Your task to perform on an android device: visit the assistant section in the google photos Image 0: 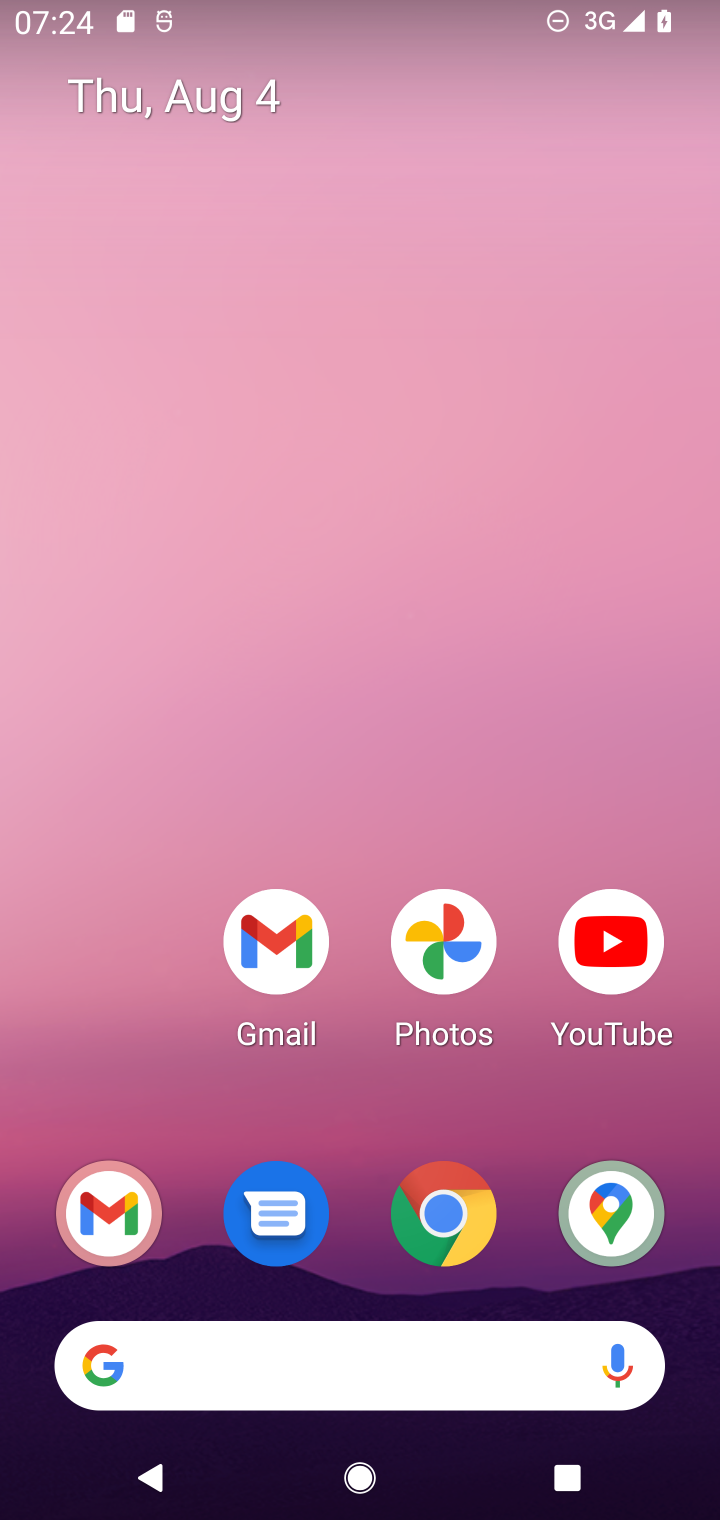
Step 0: press home button
Your task to perform on an android device: visit the assistant section in the google photos Image 1: 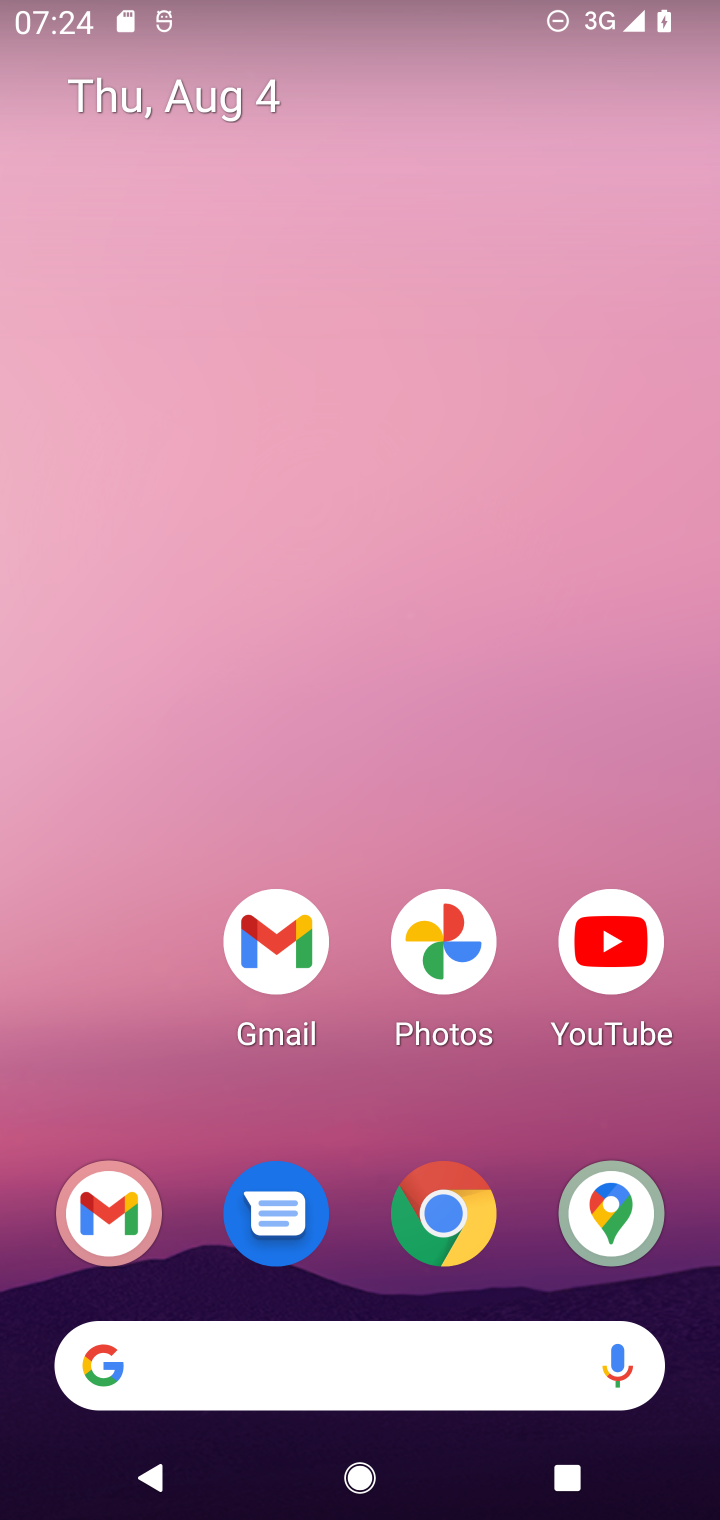
Step 1: drag from (147, 1038) to (132, 397)
Your task to perform on an android device: visit the assistant section in the google photos Image 2: 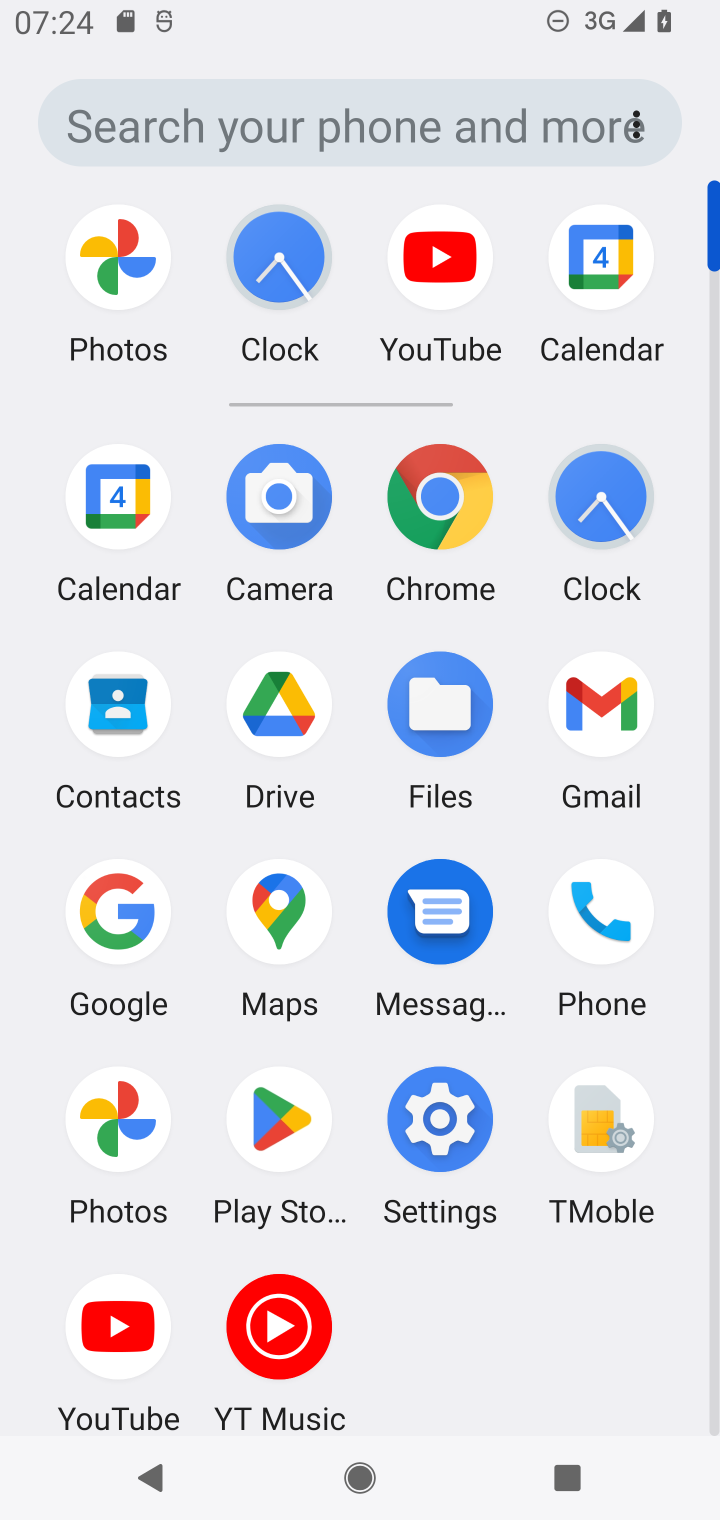
Step 2: click (112, 1130)
Your task to perform on an android device: visit the assistant section in the google photos Image 3: 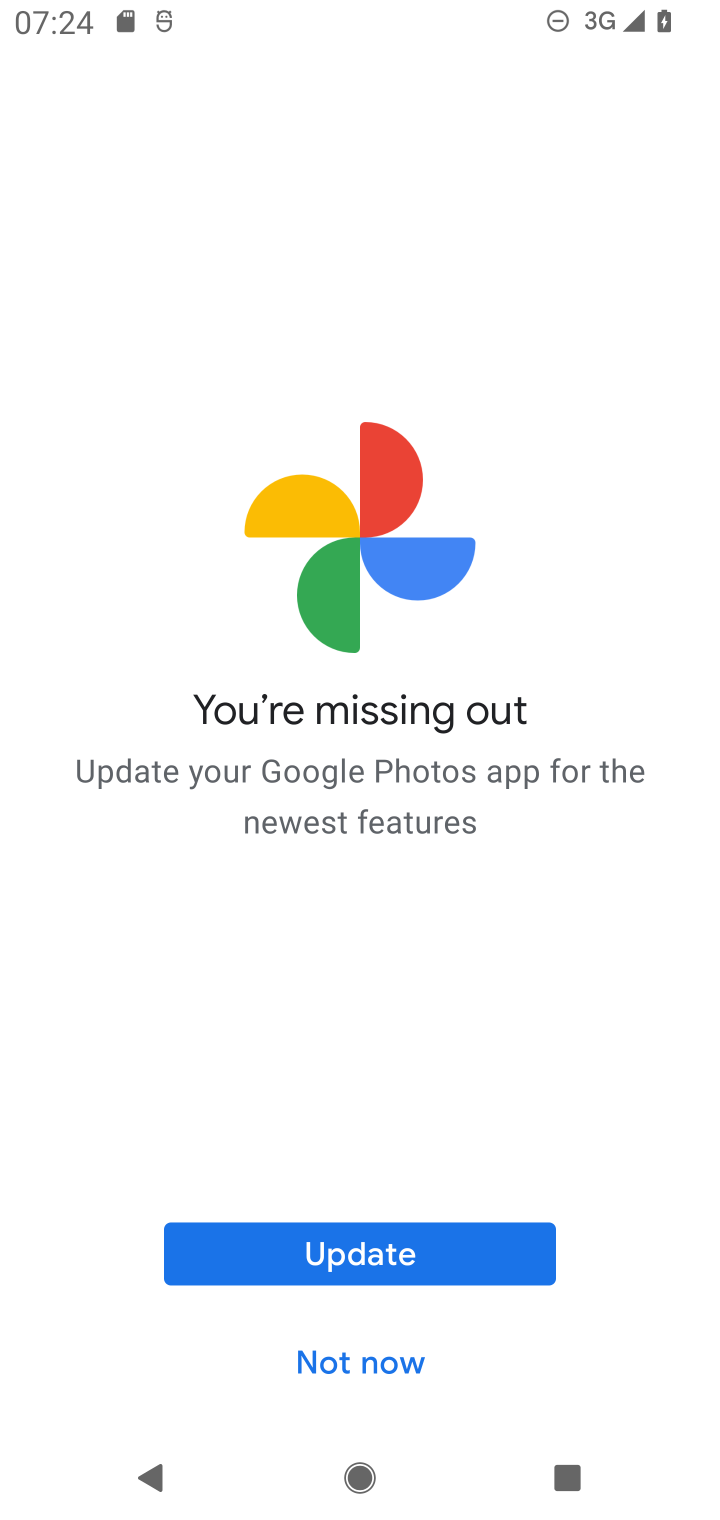
Step 3: click (377, 1359)
Your task to perform on an android device: visit the assistant section in the google photos Image 4: 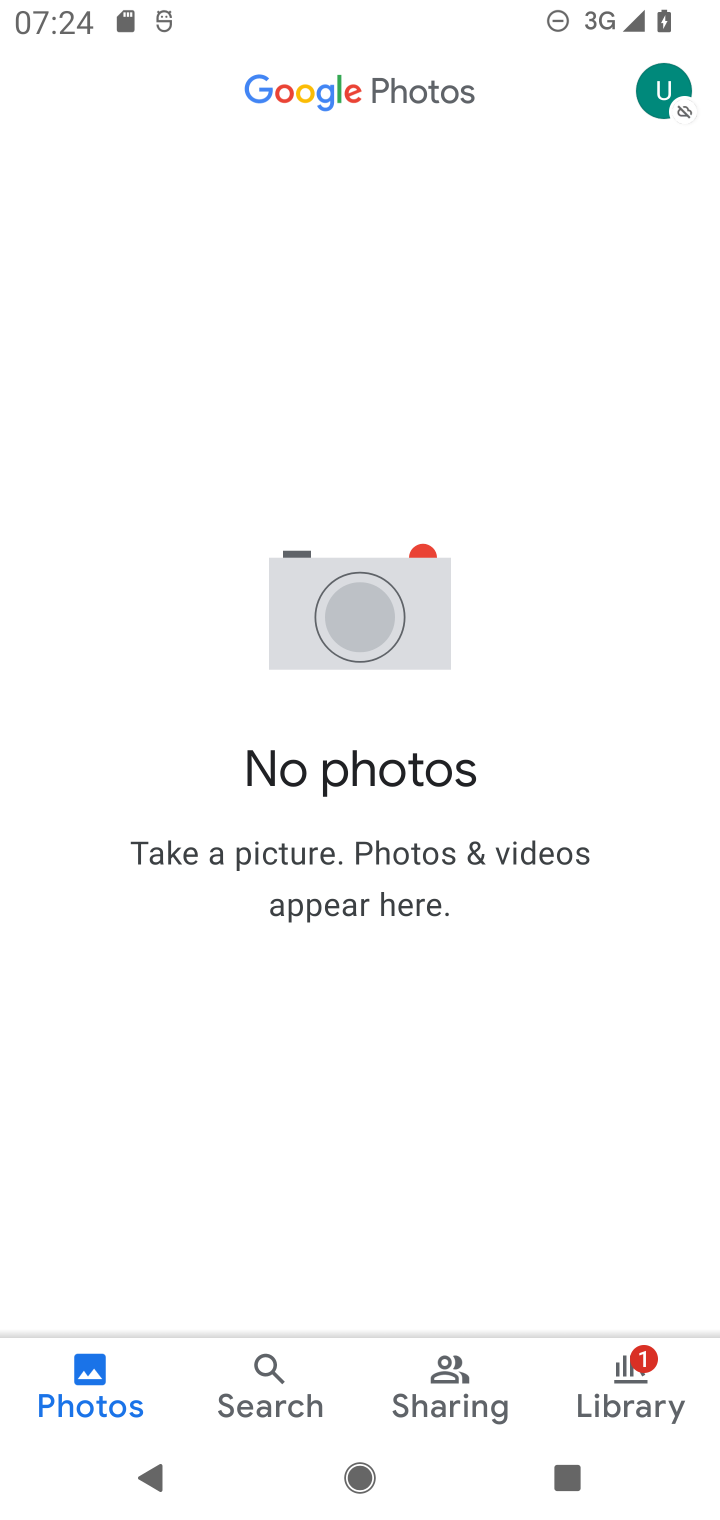
Step 4: click (629, 1384)
Your task to perform on an android device: visit the assistant section in the google photos Image 5: 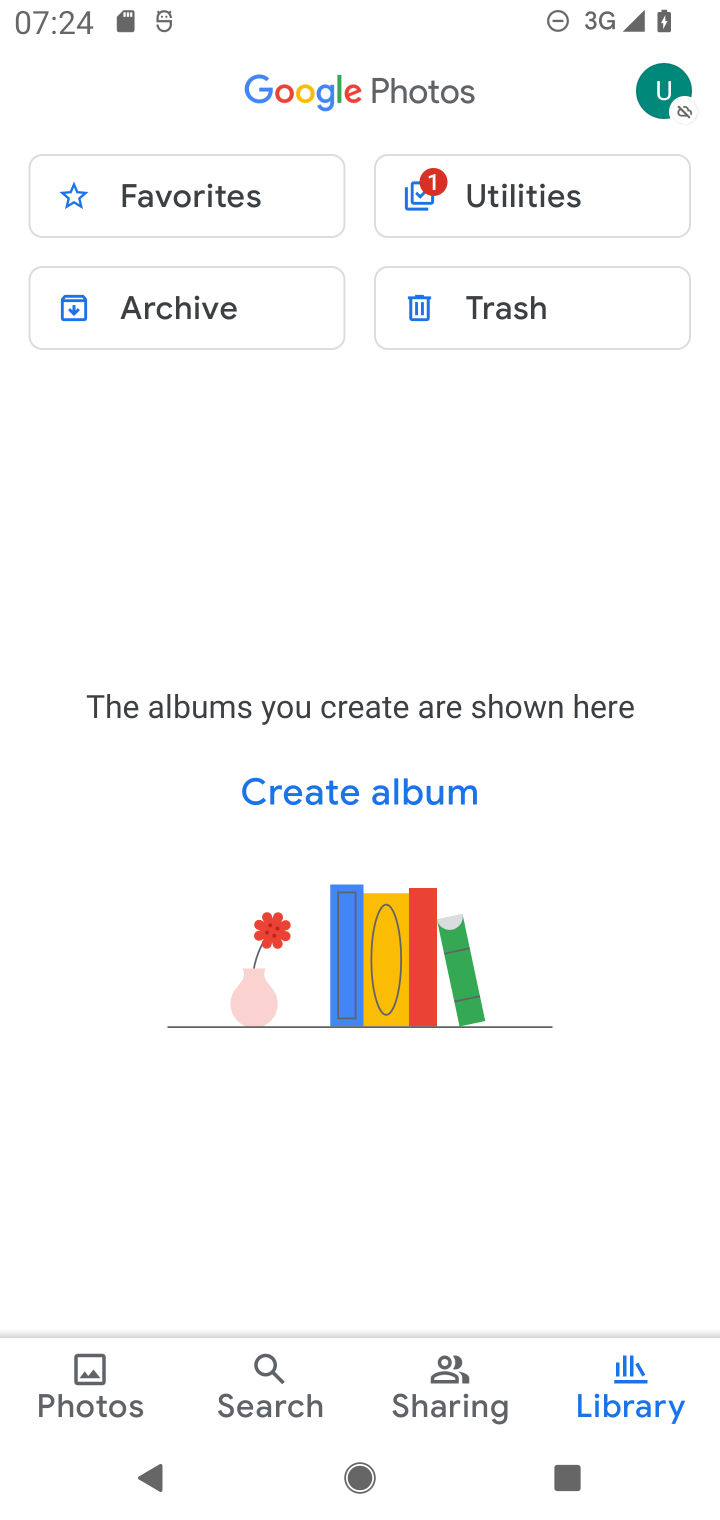
Step 5: task complete